Your task to perform on an android device: open chrome privacy settings Image 0: 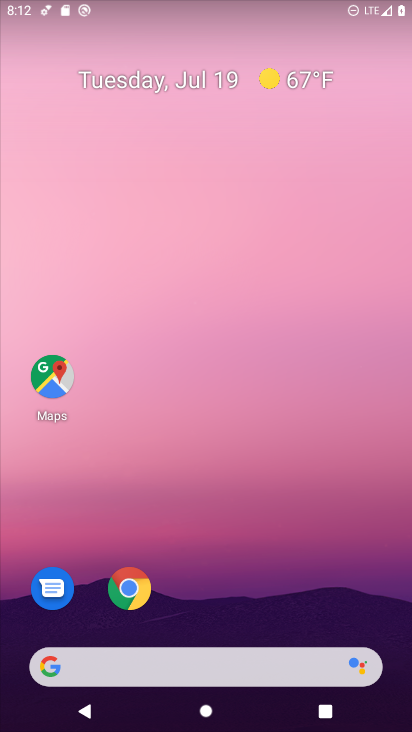
Step 0: drag from (362, 601) to (370, 111)
Your task to perform on an android device: open chrome privacy settings Image 1: 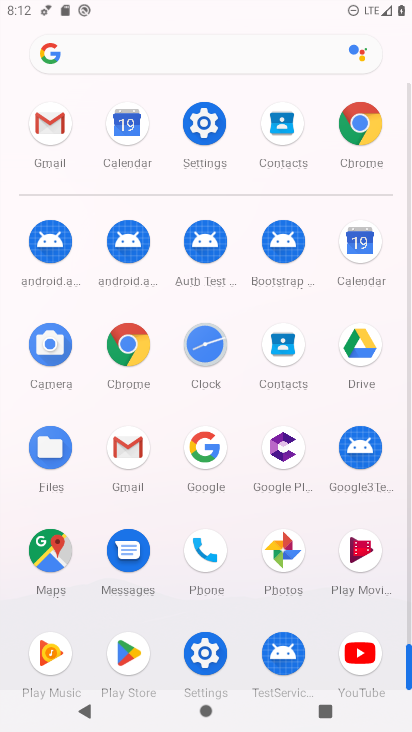
Step 1: click (134, 351)
Your task to perform on an android device: open chrome privacy settings Image 2: 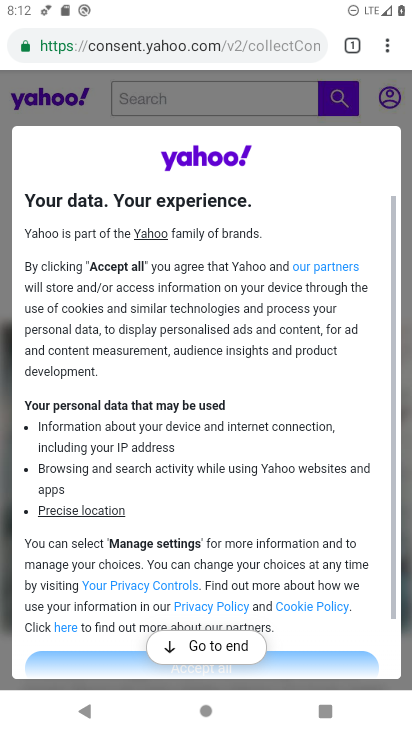
Step 2: click (386, 49)
Your task to perform on an android device: open chrome privacy settings Image 3: 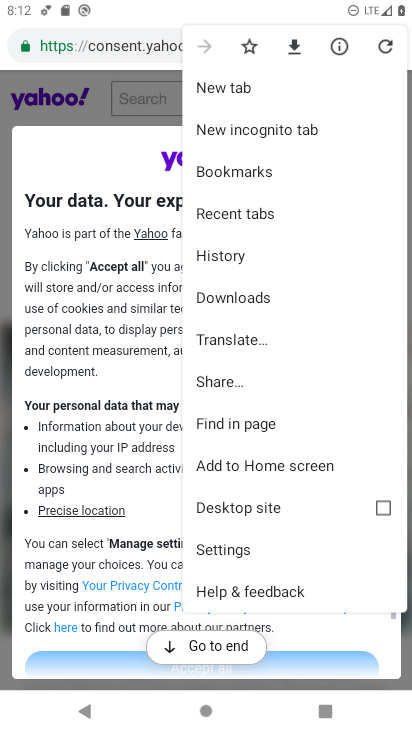
Step 3: click (254, 555)
Your task to perform on an android device: open chrome privacy settings Image 4: 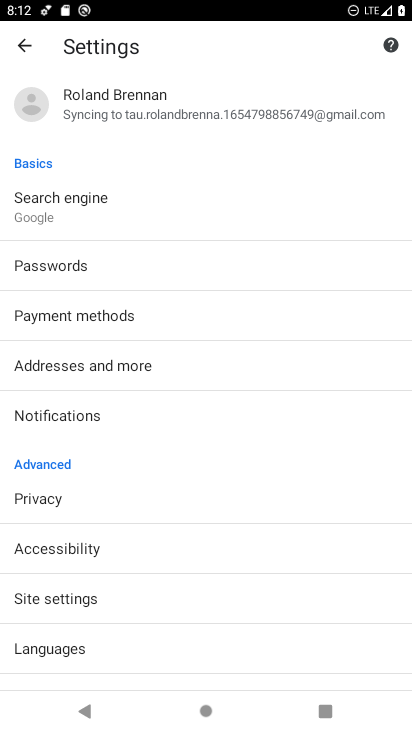
Step 4: drag from (273, 529) to (292, 456)
Your task to perform on an android device: open chrome privacy settings Image 5: 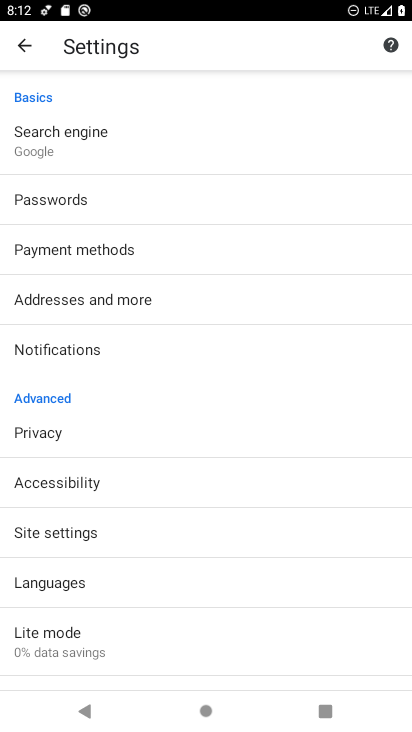
Step 5: drag from (298, 575) to (305, 494)
Your task to perform on an android device: open chrome privacy settings Image 6: 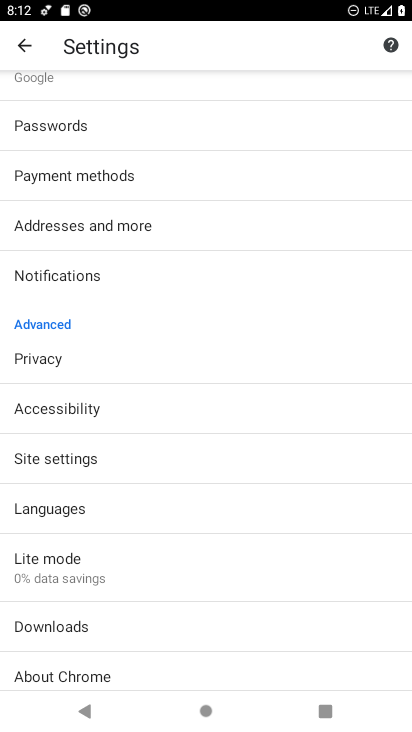
Step 6: drag from (300, 607) to (310, 499)
Your task to perform on an android device: open chrome privacy settings Image 7: 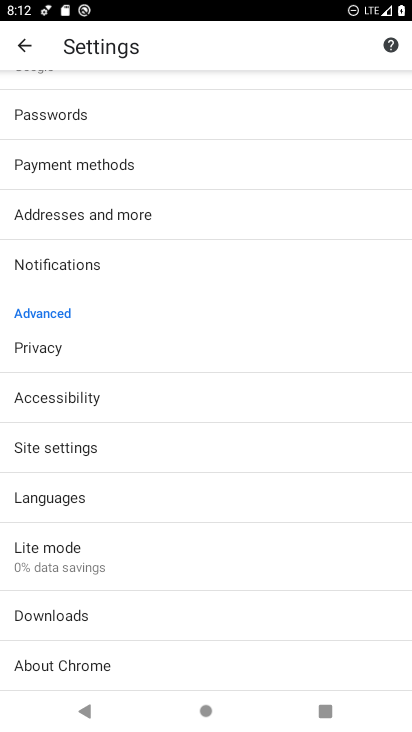
Step 7: drag from (310, 371) to (304, 455)
Your task to perform on an android device: open chrome privacy settings Image 8: 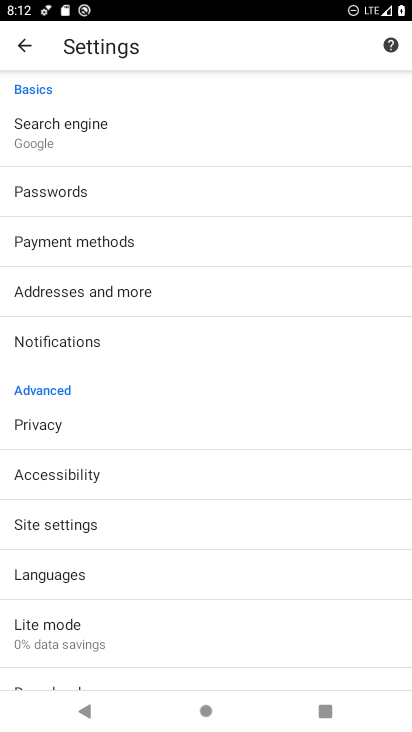
Step 8: drag from (306, 361) to (312, 538)
Your task to perform on an android device: open chrome privacy settings Image 9: 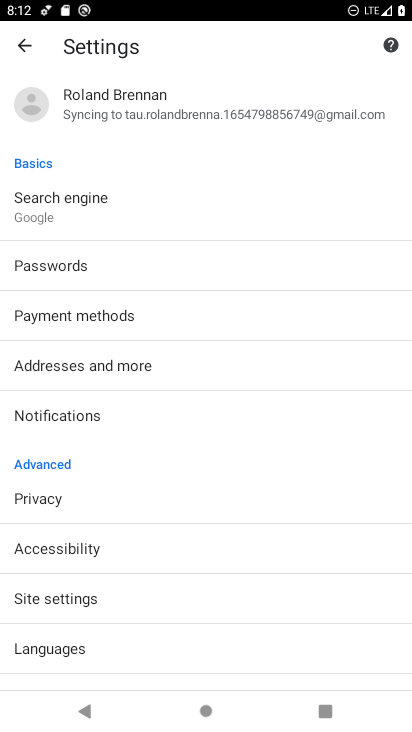
Step 9: click (265, 512)
Your task to perform on an android device: open chrome privacy settings Image 10: 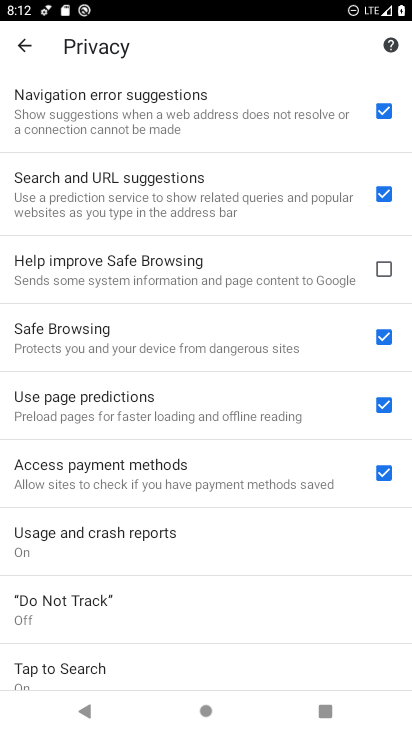
Step 10: task complete